Your task to perform on an android device: Open location settings Image 0: 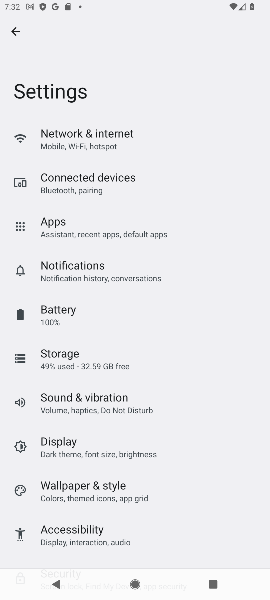
Step 0: drag from (91, 532) to (99, 241)
Your task to perform on an android device: Open location settings Image 1: 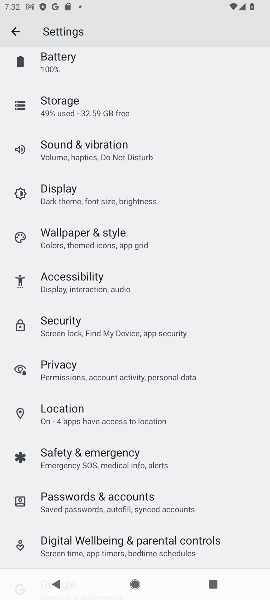
Step 1: click (68, 416)
Your task to perform on an android device: Open location settings Image 2: 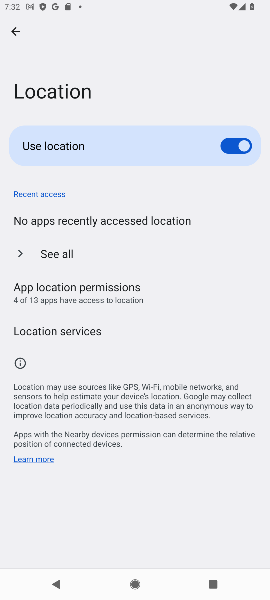
Step 2: task complete